Your task to perform on an android device: Go to calendar. Show me events next week Image 0: 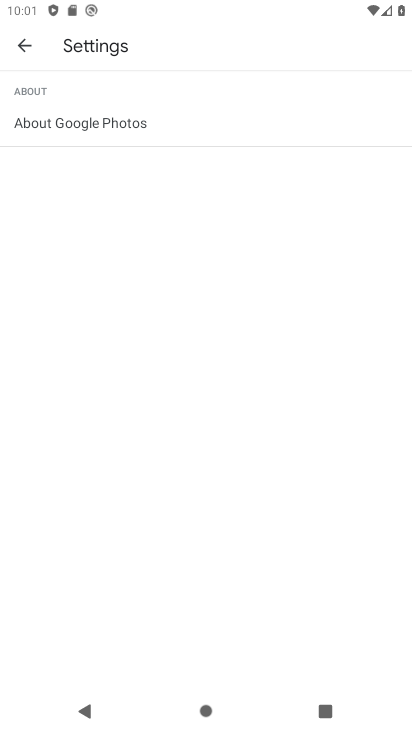
Step 0: press home button
Your task to perform on an android device: Go to calendar. Show me events next week Image 1: 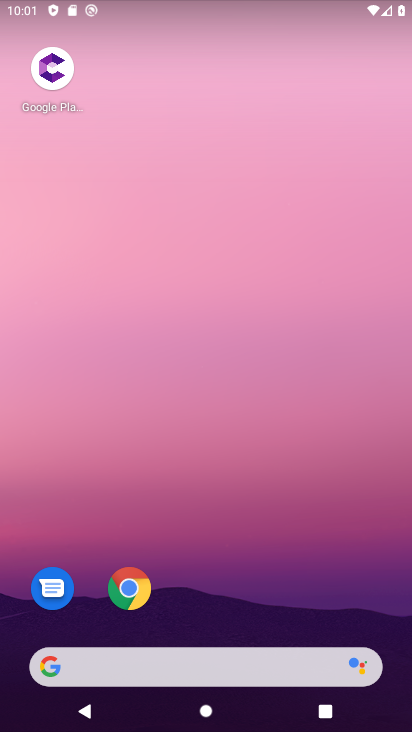
Step 1: drag from (236, 530) to (194, 43)
Your task to perform on an android device: Go to calendar. Show me events next week Image 2: 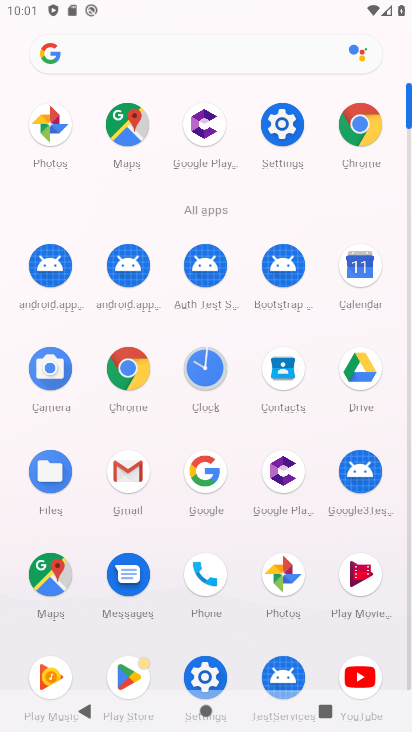
Step 2: click (361, 265)
Your task to perform on an android device: Go to calendar. Show me events next week Image 3: 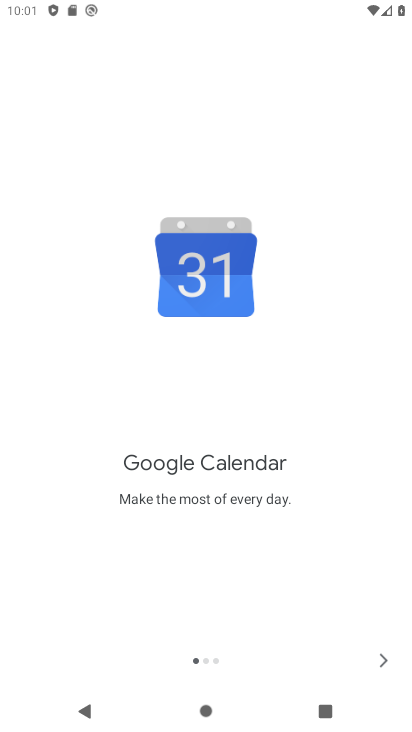
Step 3: click (387, 658)
Your task to perform on an android device: Go to calendar. Show me events next week Image 4: 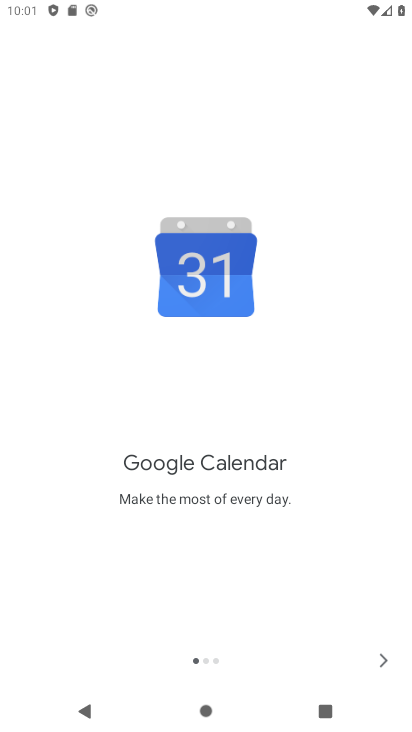
Step 4: click (387, 658)
Your task to perform on an android device: Go to calendar. Show me events next week Image 5: 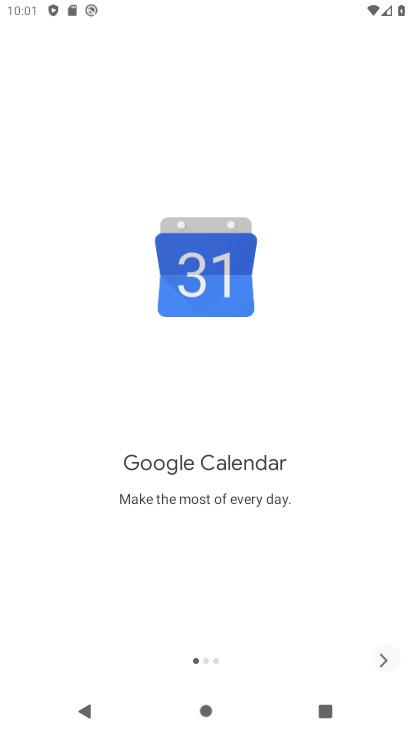
Step 5: click (387, 658)
Your task to perform on an android device: Go to calendar. Show me events next week Image 6: 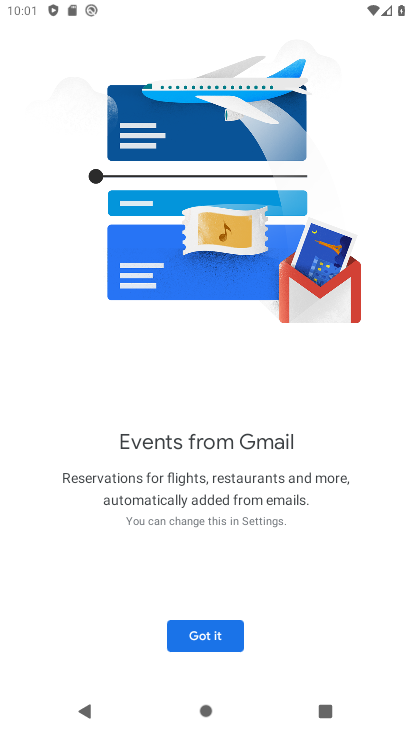
Step 6: click (200, 630)
Your task to perform on an android device: Go to calendar. Show me events next week Image 7: 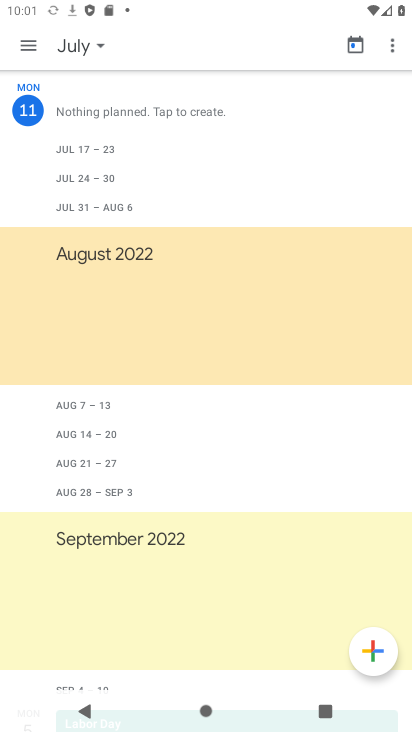
Step 7: click (28, 51)
Your task to perform on an android device: Go to calendar. Show me events next week Image 8: 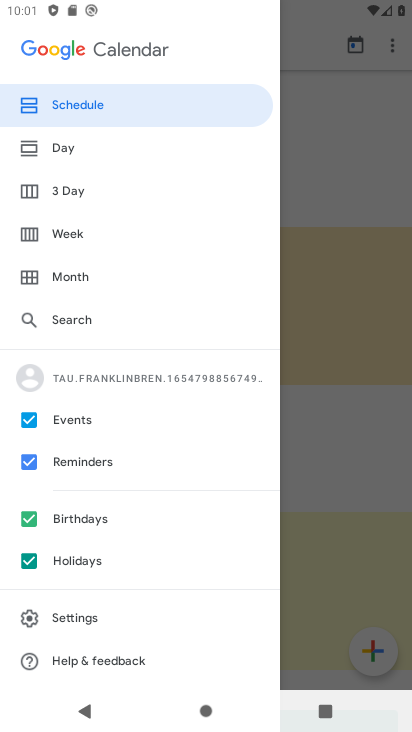
Step 8: click (58, 229)
Your task to perform on an android device: Go to calendar. Show me events next week Image 9: 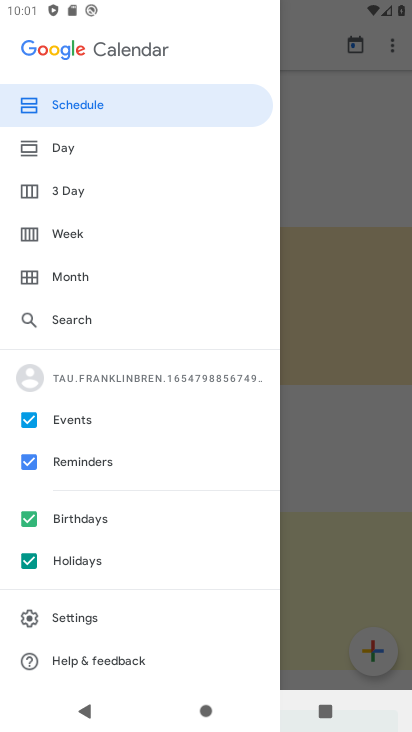
Step 9: click (75, 232)
Your task to perform on an android device: Go to calendar. Show me events next week Image 10: 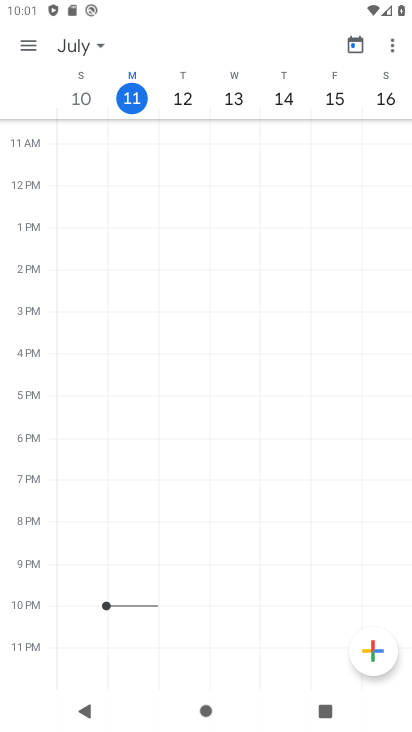
Step 10: click (98, 48)
Your task to perform on an android device: Go to calendar. Show me events next week Image 11: 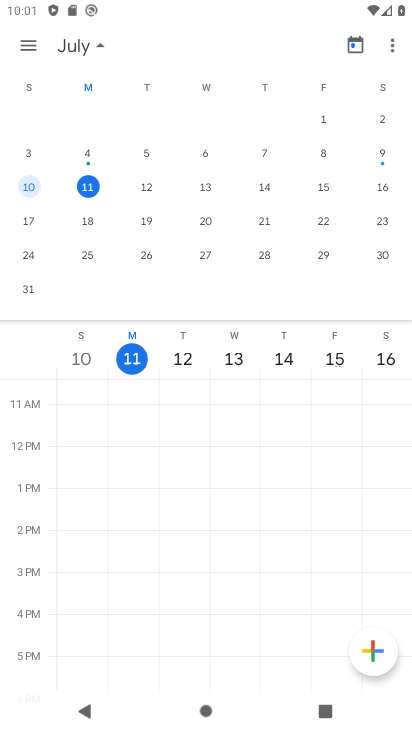
Step 11: click (82, 216)
Your task to perform on an android device: Go to calendar. Show me events next week Image 12: 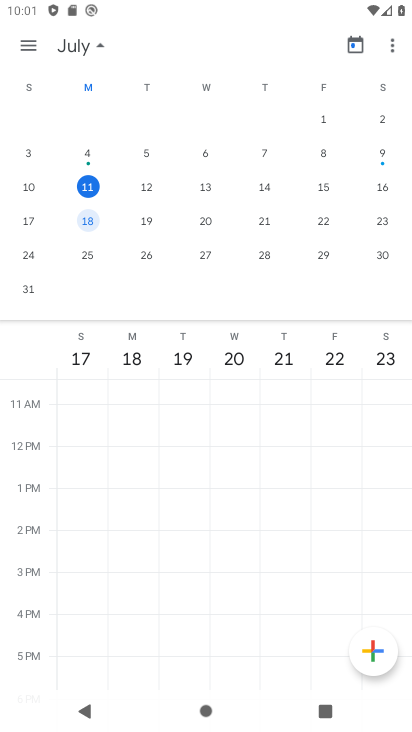
Step 12: task complete